Your task to perform on an android device: find photos in the google photos app Image 0: 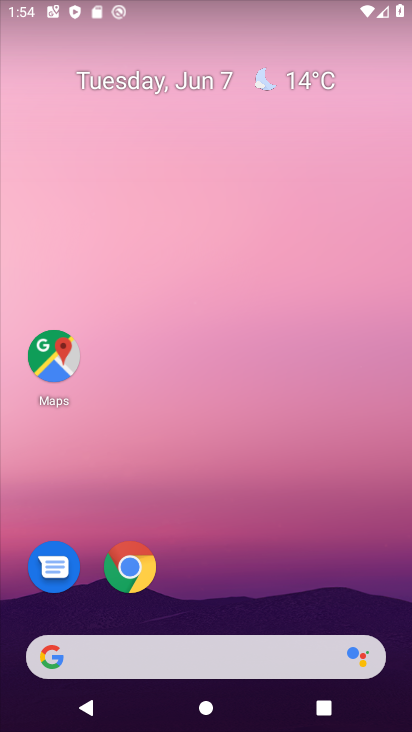
Step 0: drag from (365, 572) to (304, 21)
Your task to perform on an android device: find photos in the google photos app Image 1: 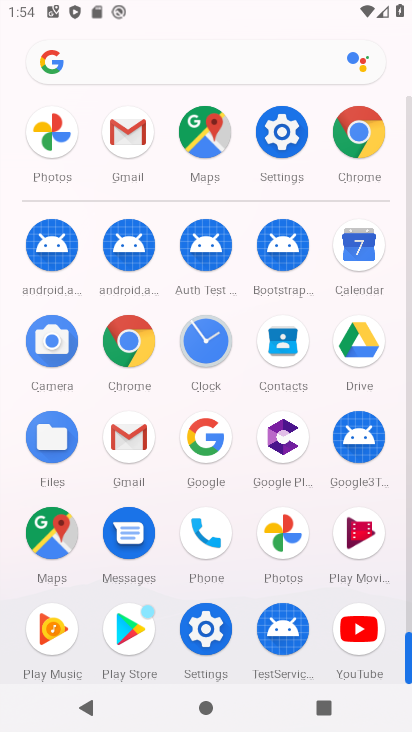
Step 1: click (273, 512)
Your task to perform on an android device: find photos in the google photos app Image 2: 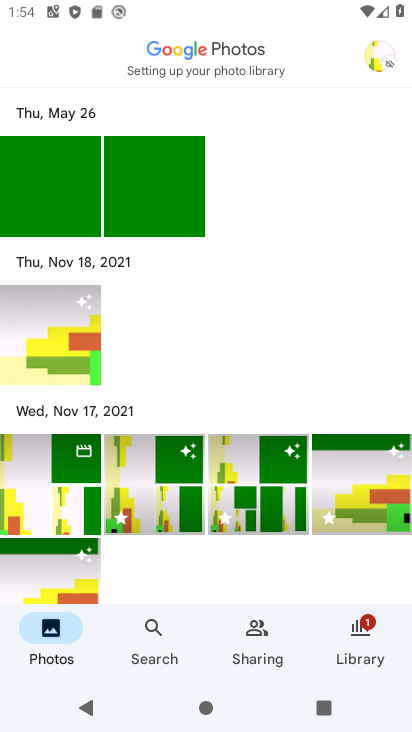
Step 2: click (47, 518)
Your task to perform on an android device: find photos in the google photos app Image 3: 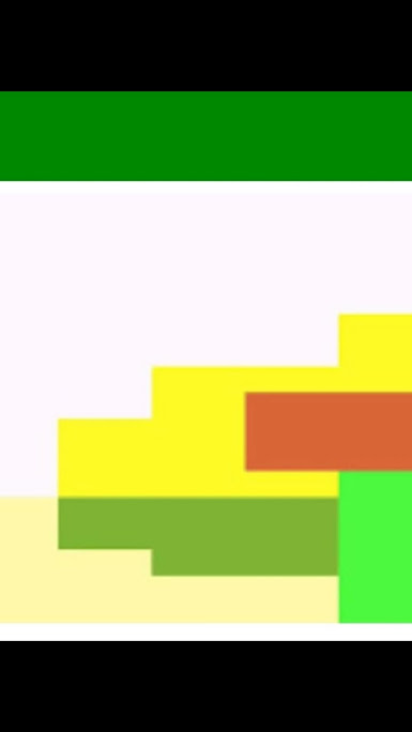
Step 3: task complete